Your task to perform on an android device: Go to privacy settings Image 0: 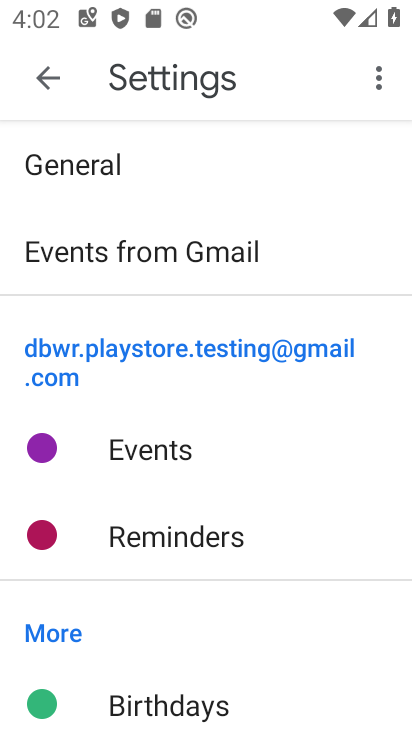
Step 0: press home button
Your task to perform on an android device: Go to privacy settings Image 1: 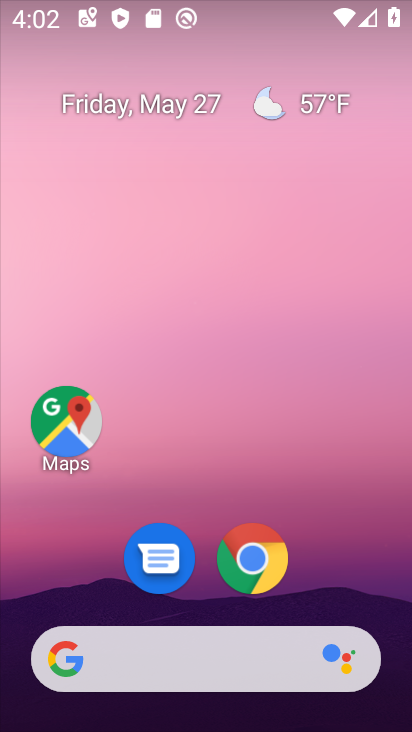
Step 1: drag from (353, 593) to (326, 258)
Your task to perform on an android device: Go to privacy settings Image 2: 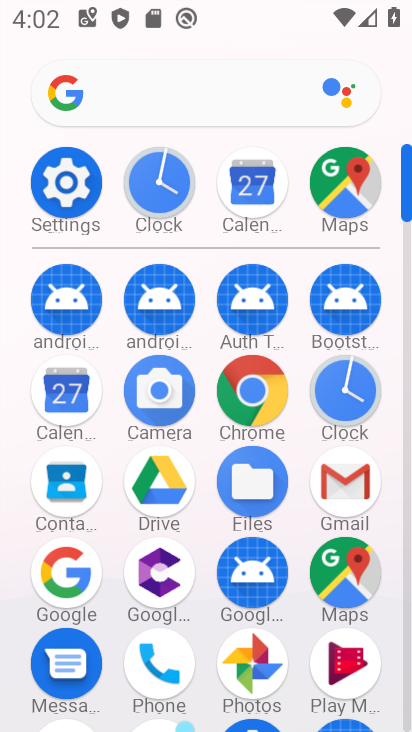
Step 2: click (82, 205)
Your task to perform on an android device: Go to privacy settings Image 3: 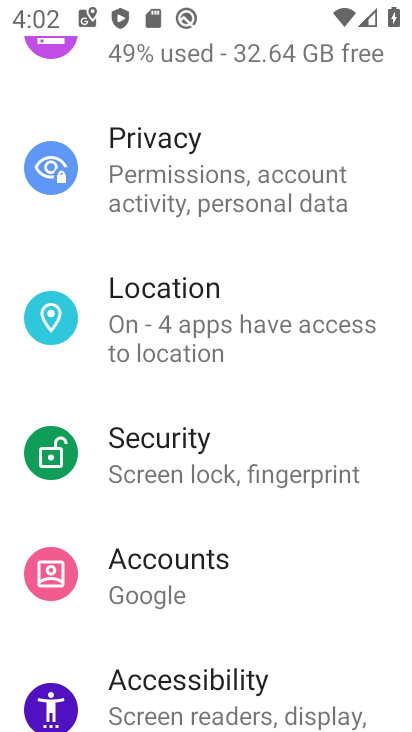
Step 3: click (198, 170)
Your task to perform on an android device: Go to privacy settings Image 4: 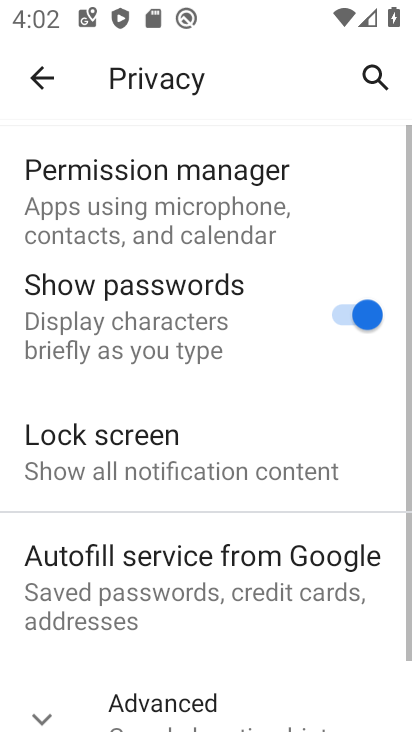
Step 4: task complete